Your task to perform on an android device: turn on improve location accuracy Image 0: 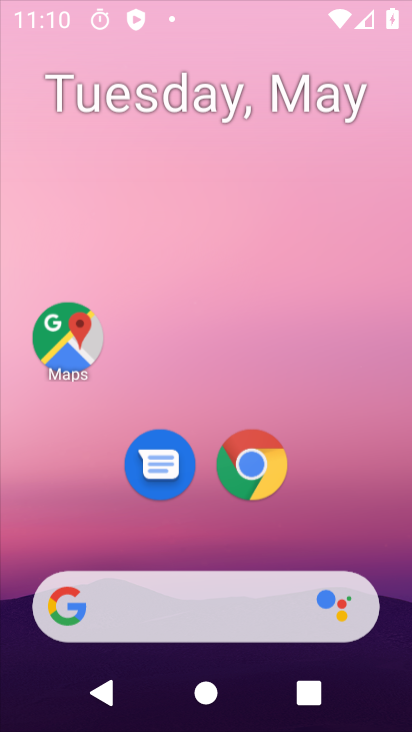
Step 0: press back button
Your task to perform on an android device: turn on improve location accuracy Image 1: 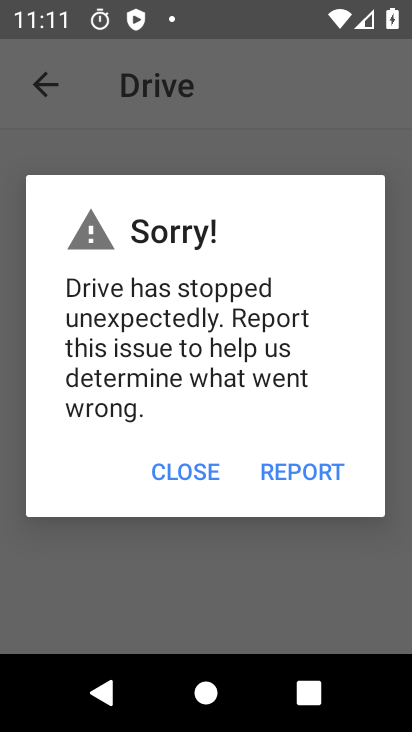
Step 1: press home button
Your task to perform on an android device: turn on improve location accuracy Image 2: 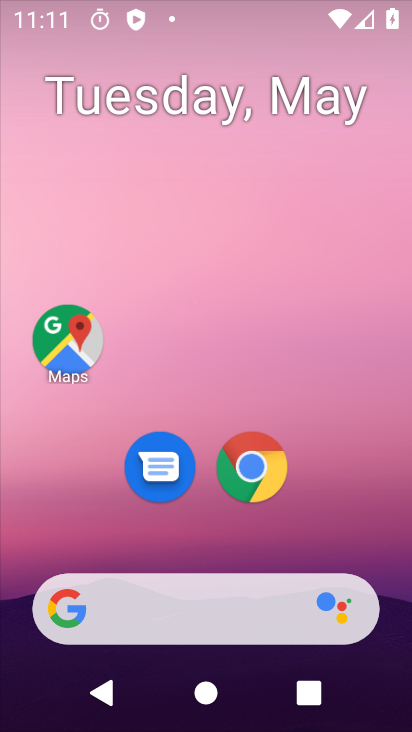
Step 2: press back button
Your task to perform on an android device: turn on improve location accuracy Image 3: 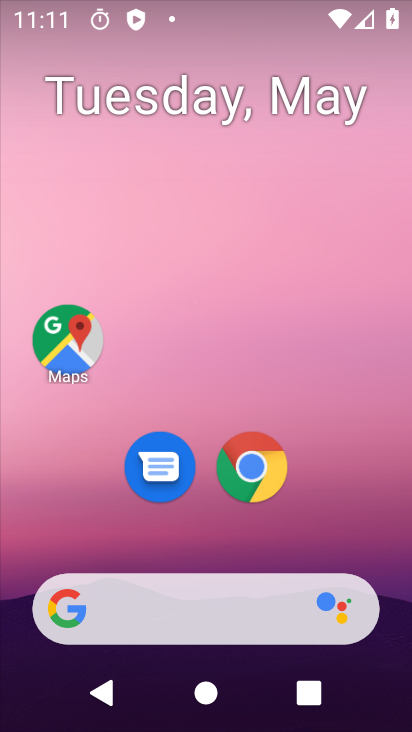
Step 3: drag from (353, 499) to (242, 11)
Your task to perform on an android device: turn on improve location accuracy Image 4: 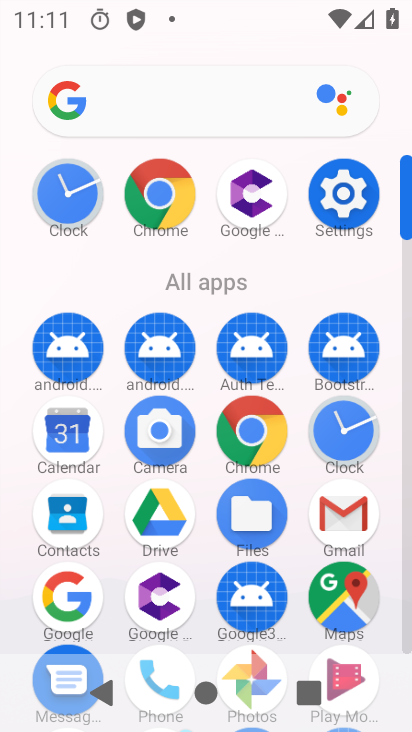
Step 4: drag from (0, 554) to (4, 466)
Your task to perform on an android device: turn on improve location accuracy Image 5: 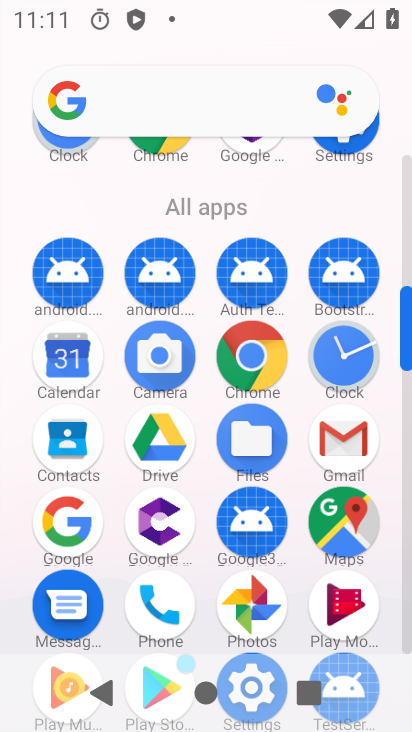
Step 5: drag from (14, 561) to (8, 355)
Your task to perform on an android device: turn on improve location accuracy Image 6: 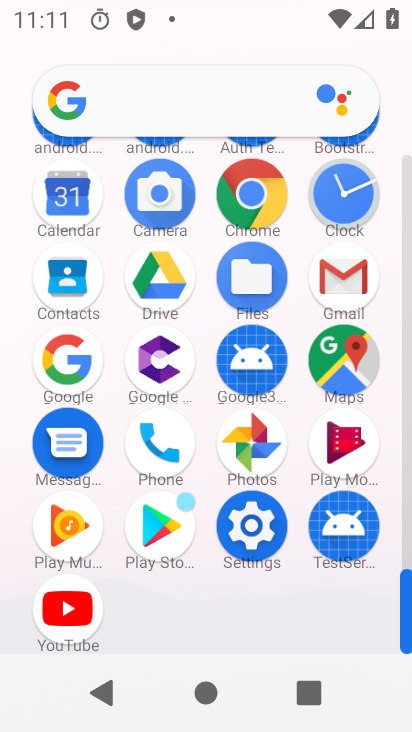
Step 6: click (253, 528)
Your task to perform on an android device: turn on improve location accuracy Image 7: 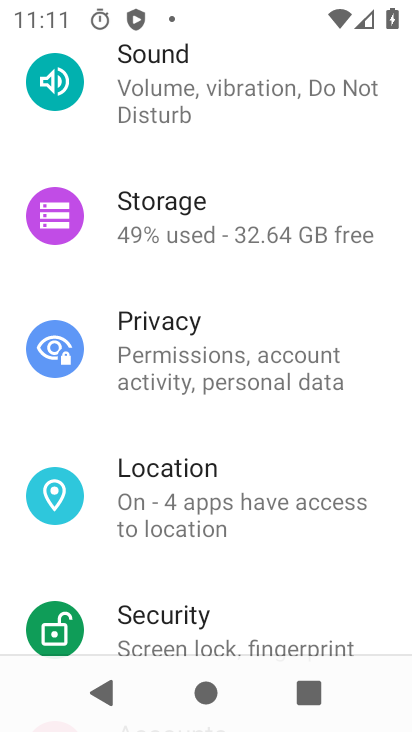
Step 7: click (263, 490)
Your task to perform on an android device: turn on improve location accuracy Image 8: 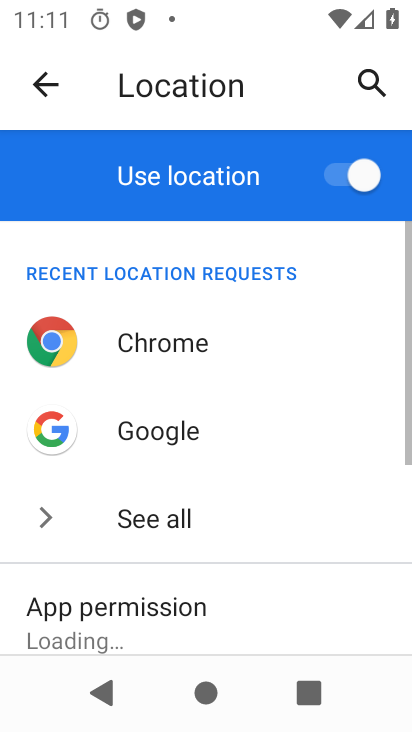
Step 8: drag from (279, 559) to (231, 120)
Your task to perform on an android device: turn on improve location accuracy Image 9: 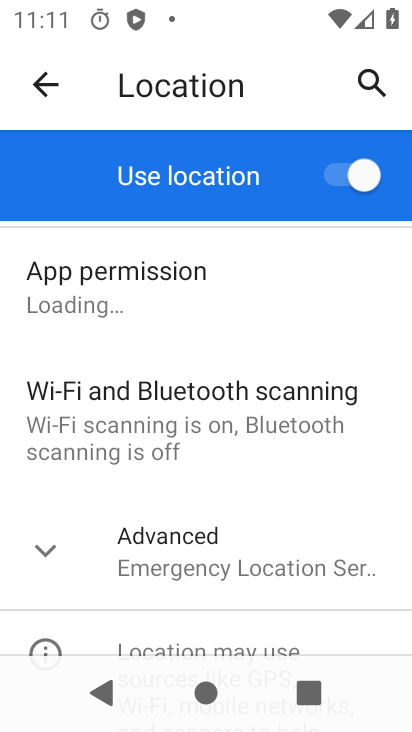
Step 9: drag from (241, 485) to (230, 190)
Your task to perform on an android device: turn on improve location accuracy Image 10: 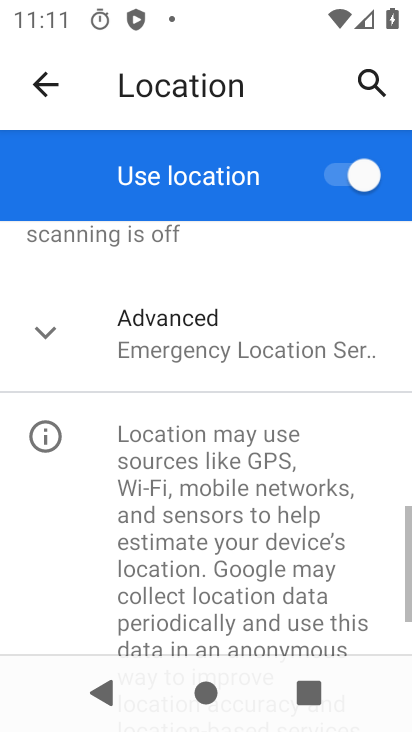
Step 10: click (39, 335)
Your task to perform on an android device: turn on improve location accuracy Image 11: 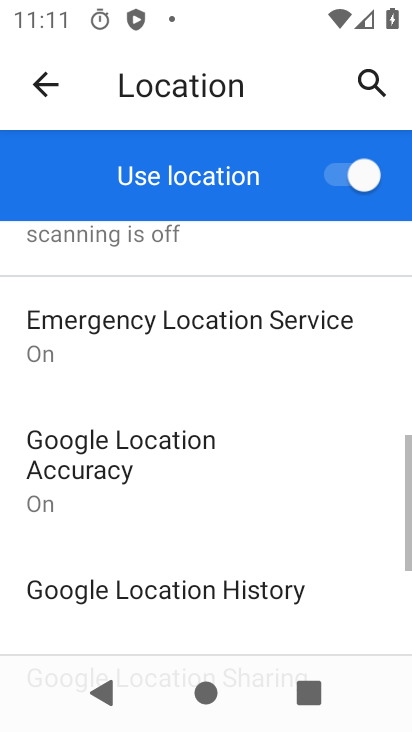
Step 11: drag from (215, 572) to (201, 251)
Your task to perform on an android device: turn on improve location accuracy Image 12: 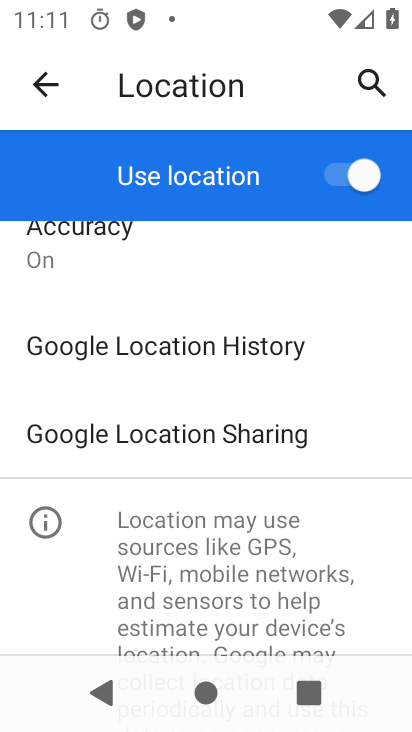
Step 12: click (158, 402)
Your task to perform on an android device: turn on improve location accuracy Image 13: 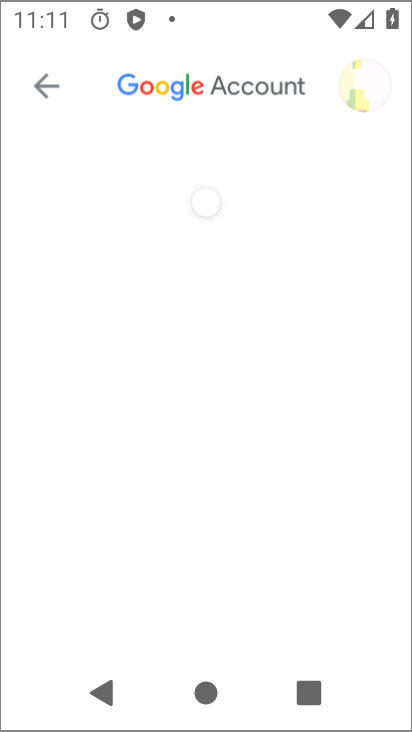
Step 13: press back button
Your task to perform on an android device: turn on improve location accuracy Image 14: 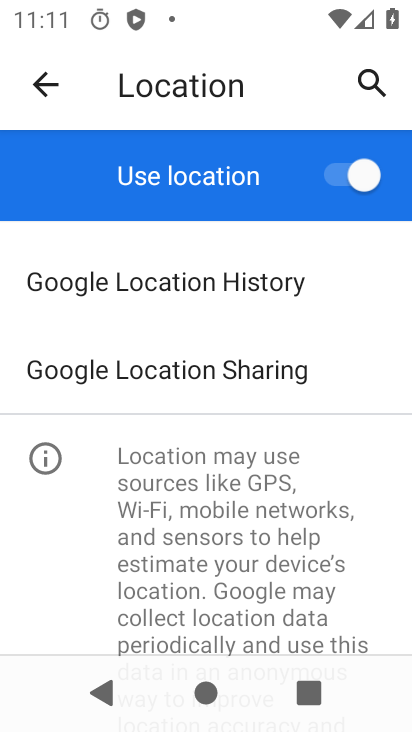
Step 14: drag from (295, 296) to (311, 599)
Your task to perform on an android device: turn on improve location accuracy Image 15: 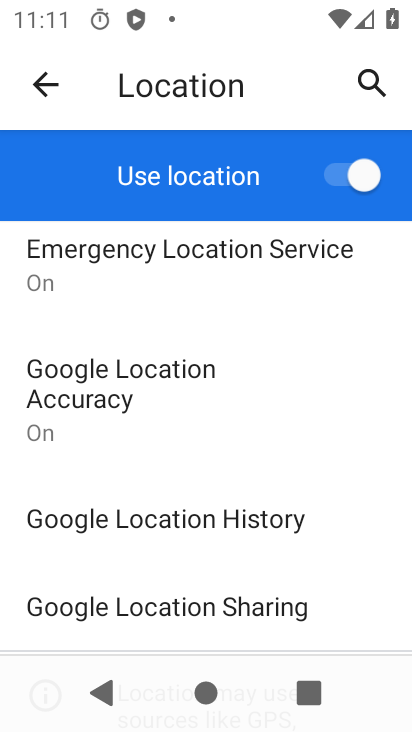
Step 15: click (147, 398)
Your task to perform on an android device: turn on improve location accuracy Image 16: 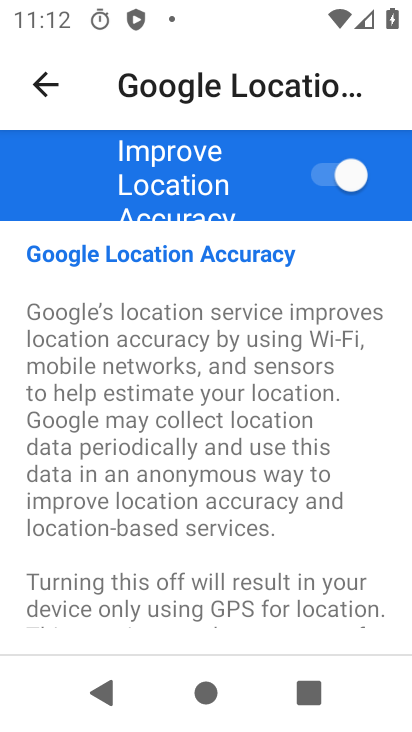
Step 16: task complete